Your task to perform on an android device: Open accessibility settings Image 0: 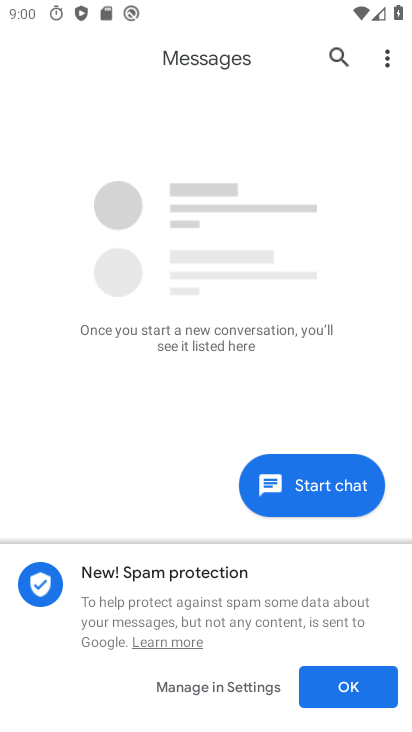
Step 0: press home button
Your task to perform on an android device: Open accessibility settings Image 1: 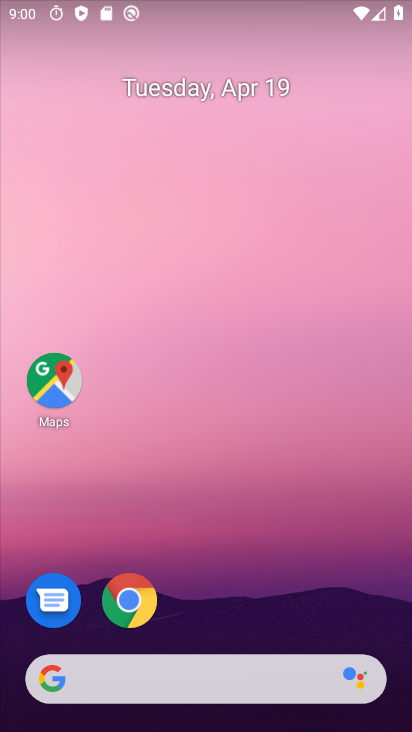
Step 1: drag from (213, 501) to (236, 42)
Your task to perform on an android device: Open accessibility settings Image 2: 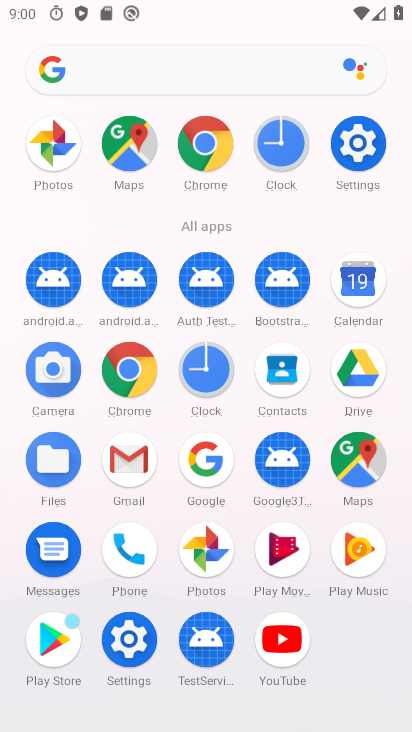
Step 2: click (360, 143)
Your task to perform on an android device: Open accessibility settings Image 3: 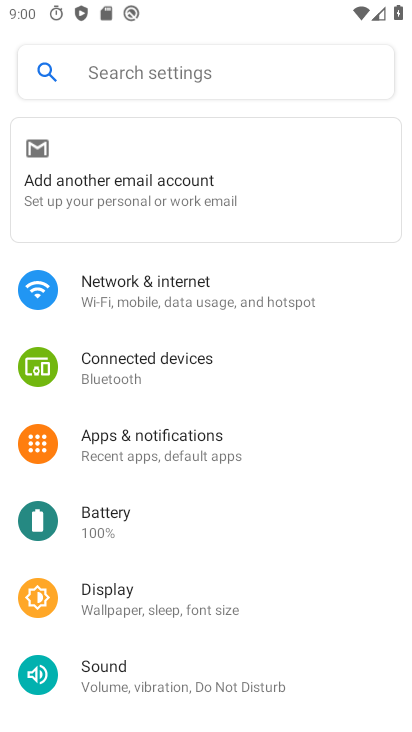
Step 3: drag from (172, 469) to (192, 127)
Your task to perform on an android device: Open accessibility settings Image 4: 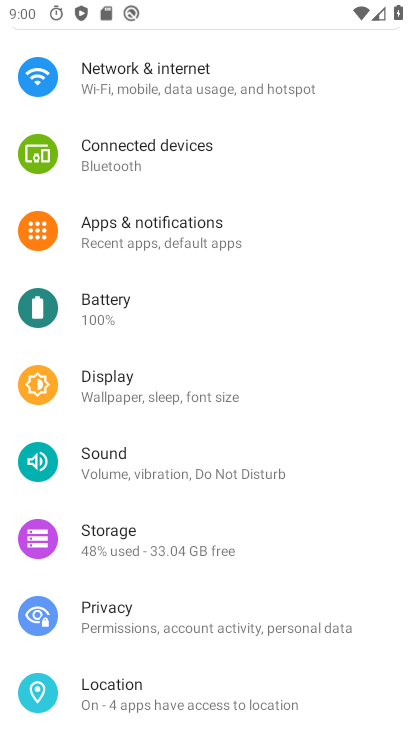
Step 4: drag from (171, 670) to (182, 111)
Your task to perform on an android device: Open accessibility settings Image 5: 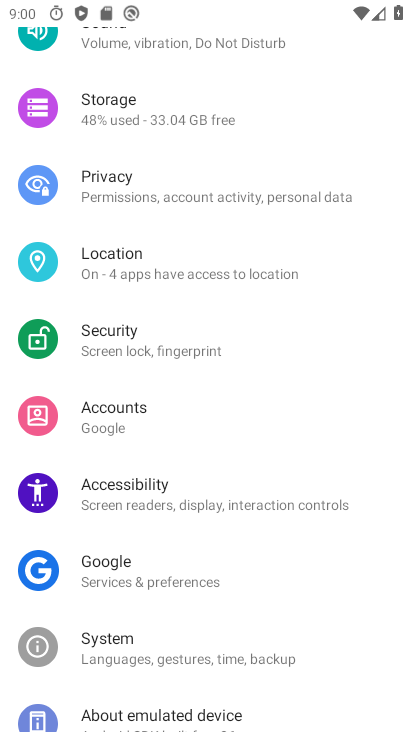
Step 5: click (184, 485)
Your task to perform on an android device: Open accessibility settings Image 6: 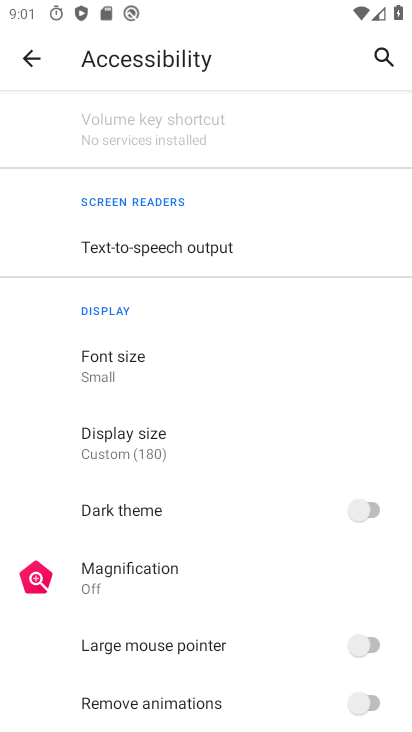
Step 6: task complete